Your task to perform on an android device: Open internet settings Image 0: 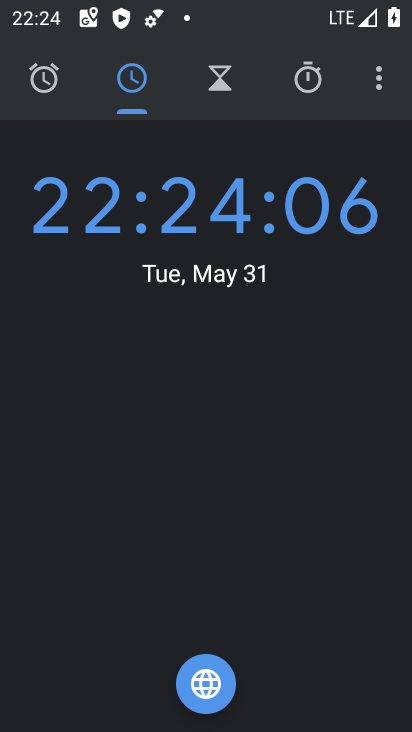
Step 0: press home button
Your task to perform on an android device: Open internet settings Image 1: 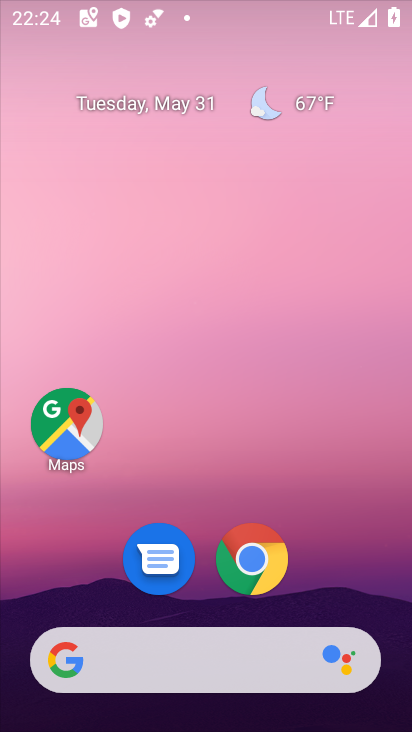
Step 1: drag from (302, 612) to (301, 82)
Your task to perform on an android device: Open internet settings Image 2: 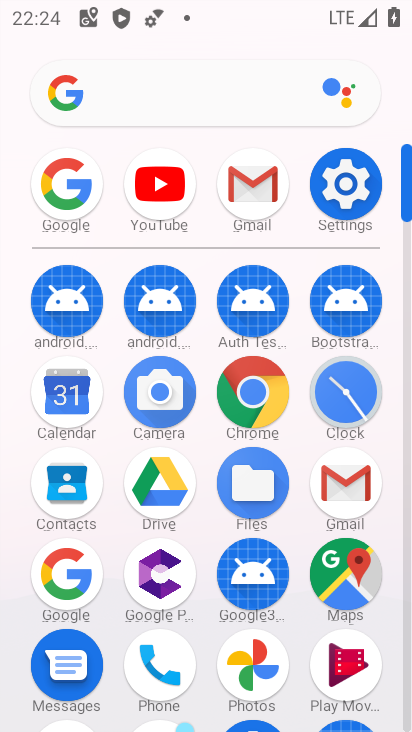
Step 2: click (346, 182)
Your task to perform on an android device: Open internet settings Image 3: 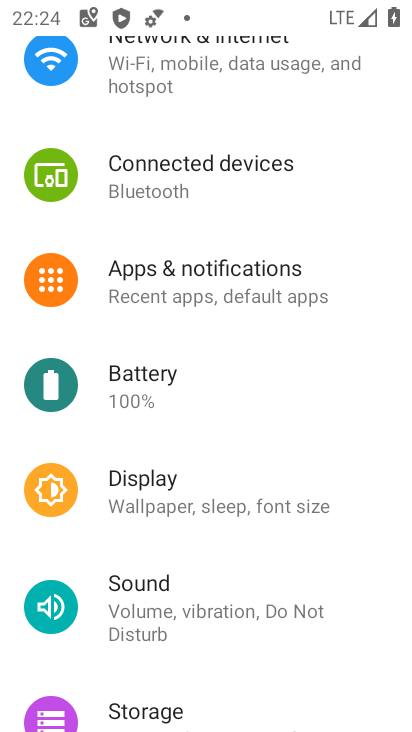
Step 3: drag from (169, 128) to (174, 510)
Your task to perform on an android device: Open internet settings Image 4: 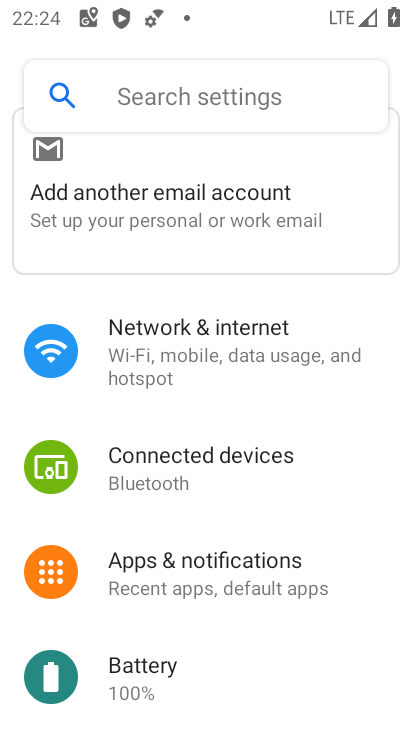
Step 4: click (214, 354)
Your task to perform on an android device: Open internet settings Image 5: 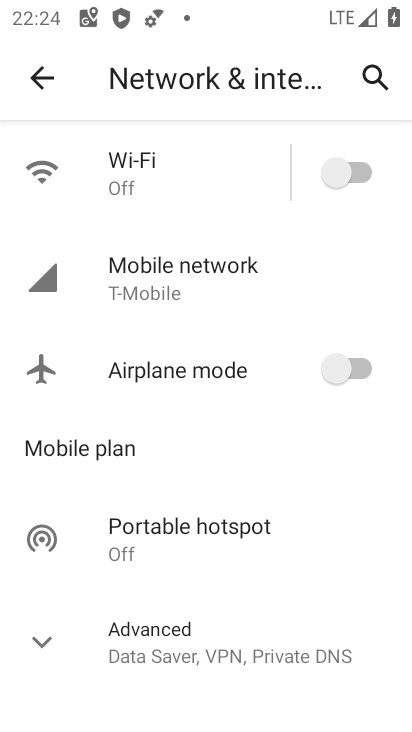
Step 5: click (157, 177)
Your task to perform on an android device: Open internet settings Image 6: 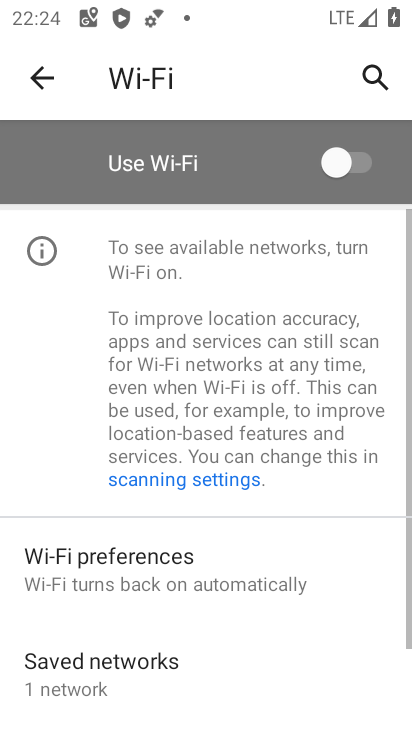
Step 6: click (348, 148)
Your task to perform on an android device: Open internet settings Image 7: 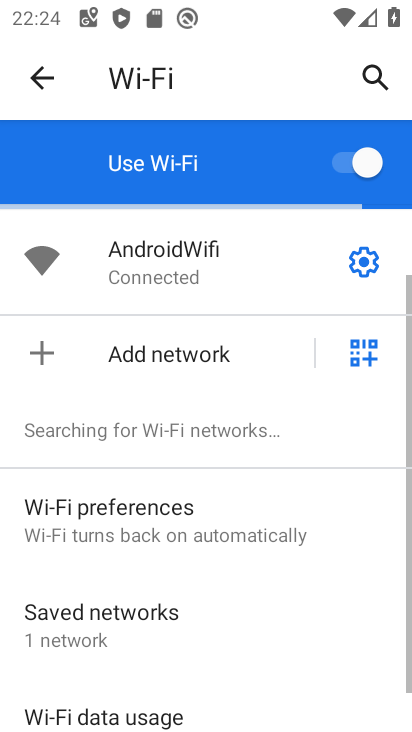
Step 7: click (187, 271)
Your task to perform on an android device: Open internet settings Image 8: 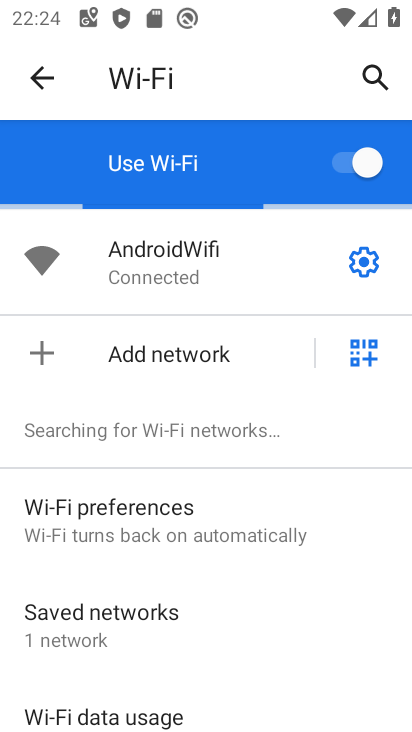
Step 8: click (242, 267)
Your task to perform on an android device: Open internet settings Image 9: 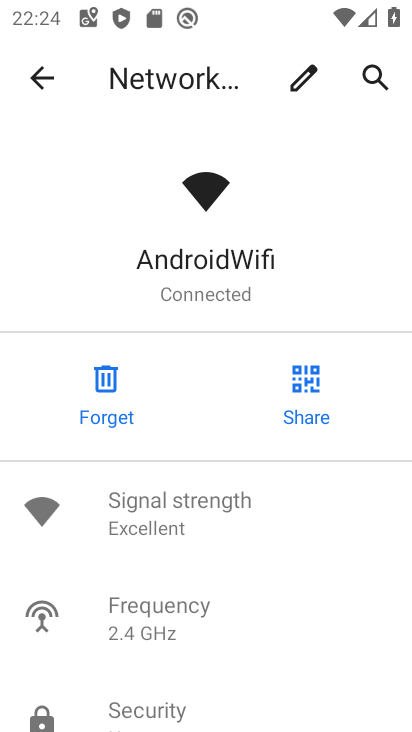
Step 9: task complete